Your task to perform on an android device: delete a single message in the gmail app Image 0: 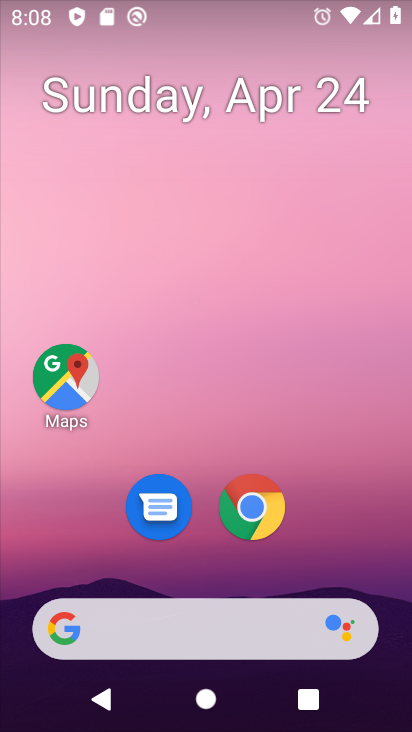
Step 0: drag from (338, 537) to (230, 159)
Your task to perform on an android device: delete a single message in the gmail app Image 1: 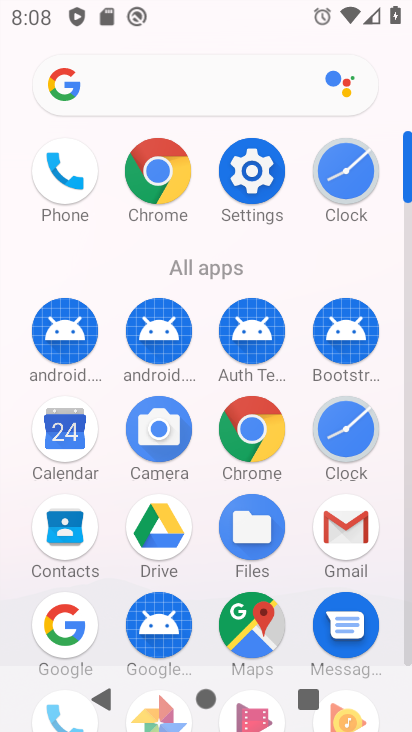
Step 1: click (358, 541)
Your task to perform on an android device: delete a single message in the gmail app Image 2: 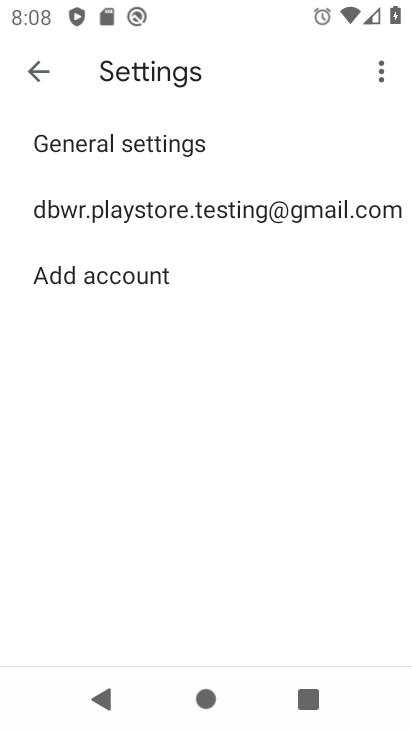
Step 2: click (34, 57)
Your task to perform on an android device: delete a single message in the gmail app Image 3: 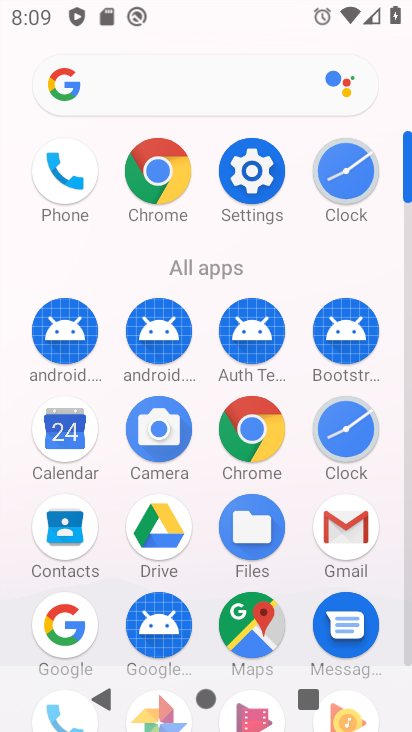
Step 3: click (344, 520)
Your task to perform on an android device: delete a single message in the gmail app Image 4: 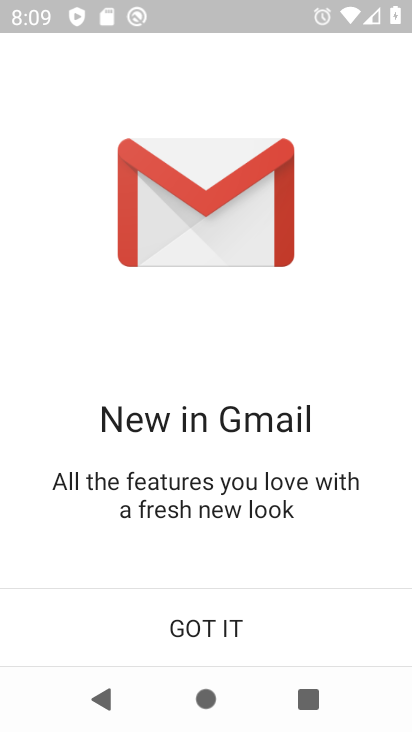
Step 4: click (204, 627)
Your task to perform on an android device: delete a single message in the gmail app Image 5: 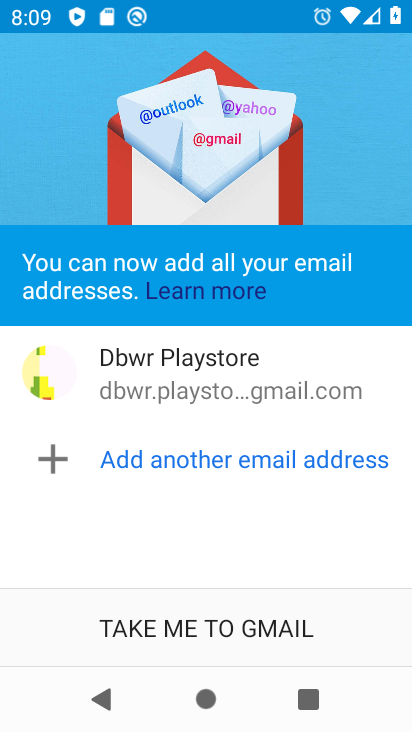
Step 5: click (200, 627)
Your task to perform on an android device: delete a single message in the gmail app Image 6: 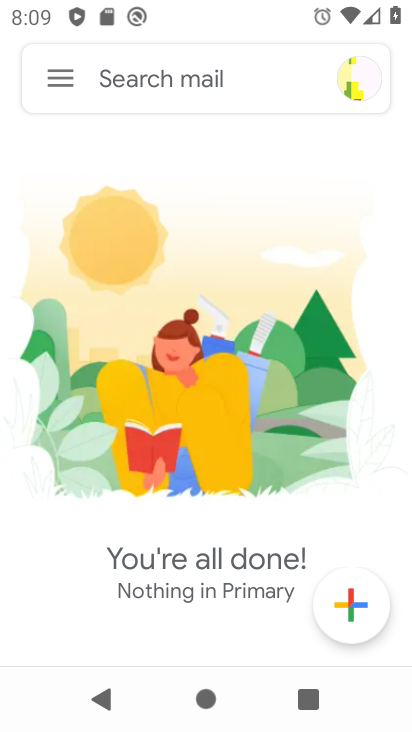
Step 6: task complete